Your task to perform on an android device: allow notifications from all sites in the chrome app Image 0: 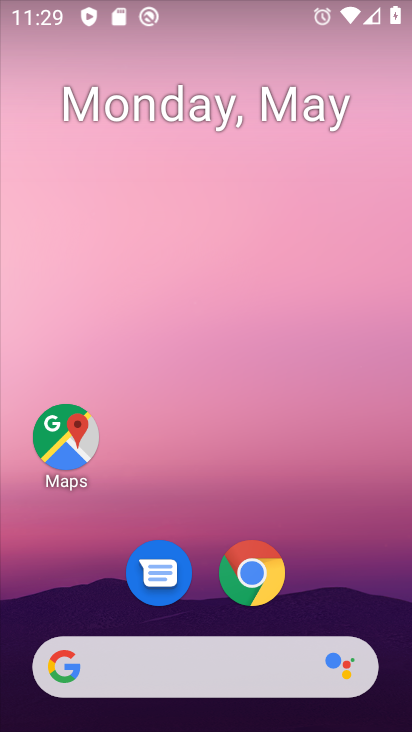
Step 0: drag from (114, 721) to (125, 221)
Your task to perform on an android device: allow notifications from all sites in the chrome app Image 1: 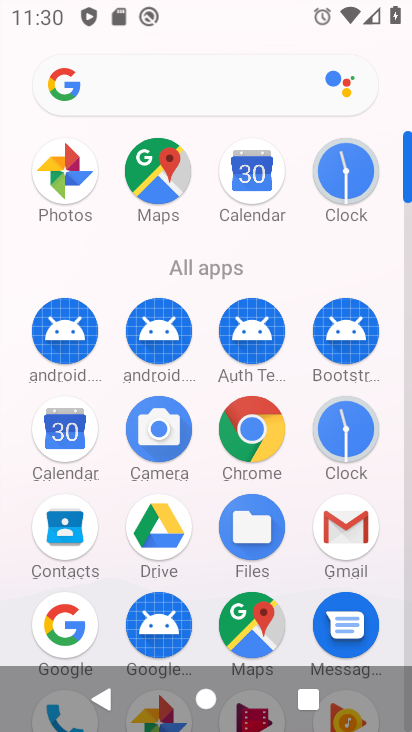
Step 1: click (239, 426)
Your task to perform on an android device: allow notifications from all sites in the chrome app Image 2: 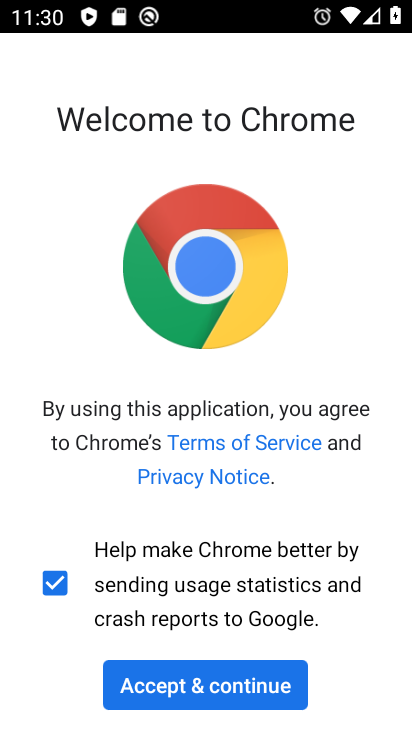
Step 2: click (142, 691)
Your task to perform on an android device: allow notifications from all sites in the chrome app Image 3: 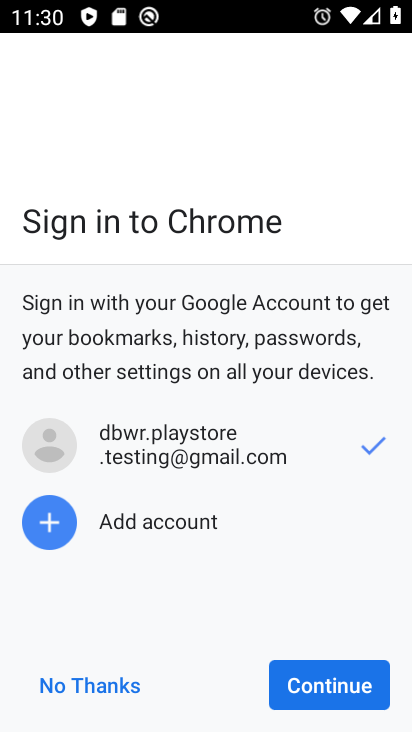
Step 3: click (321, 705)
Your task to perform on an android device: allow notifications from all sites in the chrome app Image 4: 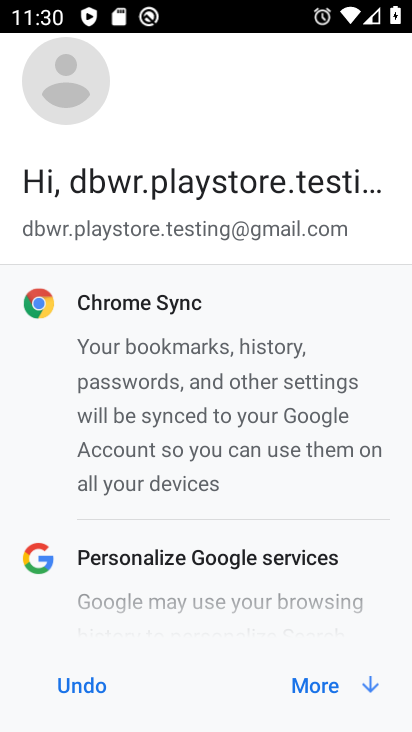
Step 4: click (313, 684)
Your task to perform on an android device: allow notifications from all sites in the chrome app Image 5: 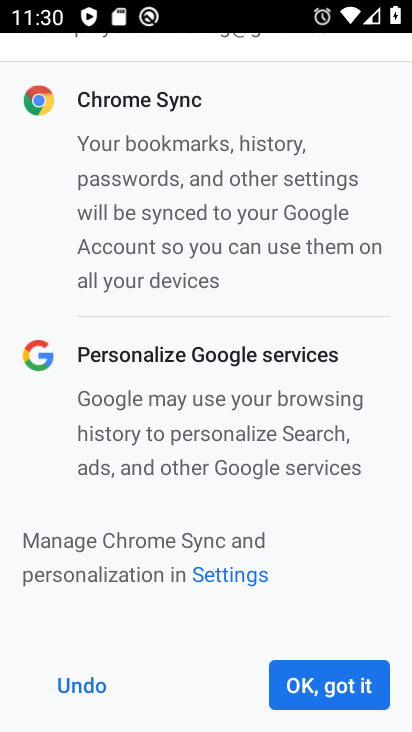
Step 5: click (310, 685)
Your task to perform on an android device: allow notifications from all sites in the chrome app Image 6: 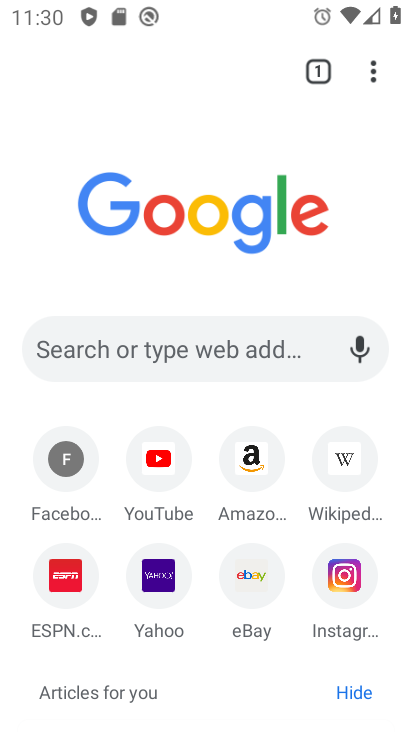
Step 6: click (371, 62)
Your task to perform on an android device: allow notifications from all sites in the chrome app Image 7: 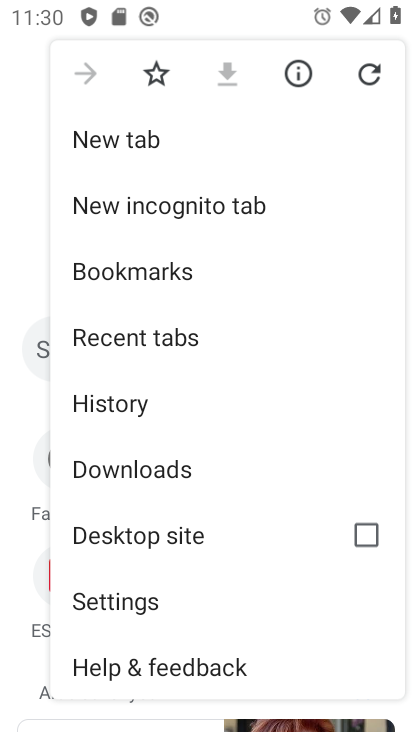
Step 7: click (143, 603)
Your task to perform on an android device: allow notifications from all sites in the chrome app Image 8: 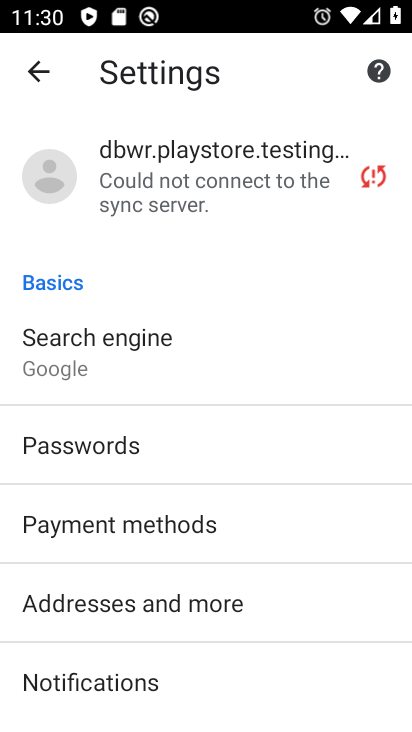
Step 8: click (138, 686)
Your task to perform on an android device: allow notifications from all sites in the chrome app Image 9: 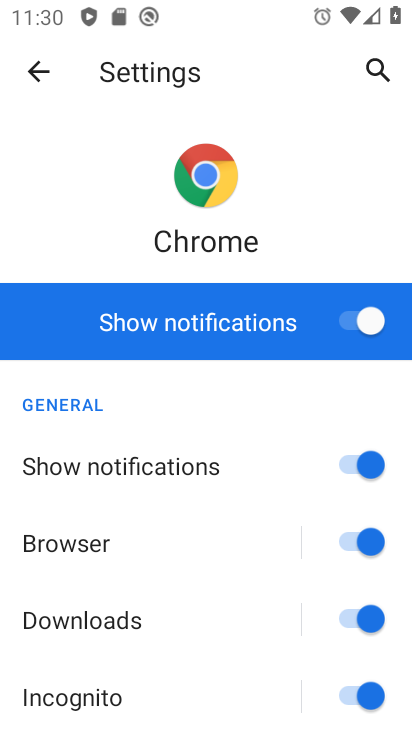
Step 9: drag from (167, 688) to (142, 273)
Your task to perform on an android device: allow notifications from all sites in the chrome app Image 10: 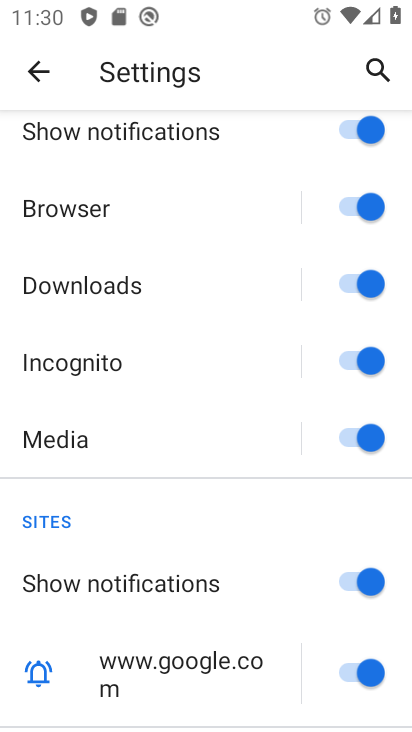
Step 10: drag from (174, 672) to (216, 269)
Your task to perform on an android device: allow notifications from all sites in the chrome app Image 11: 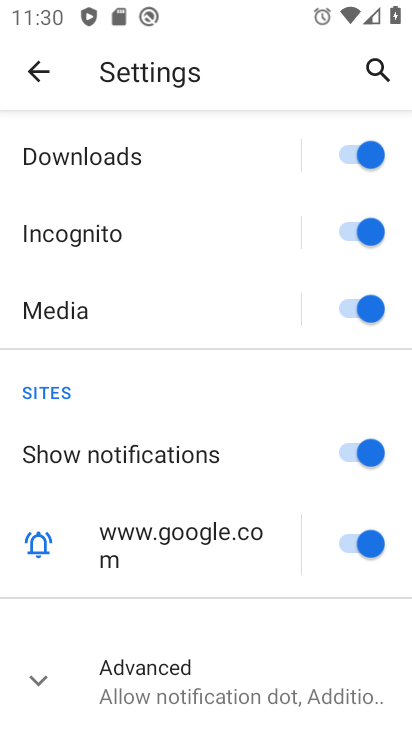
Step 11: click (153, 685)
Your task to perform on an android device: allow notifications from all sites in the chrome app Image 12: 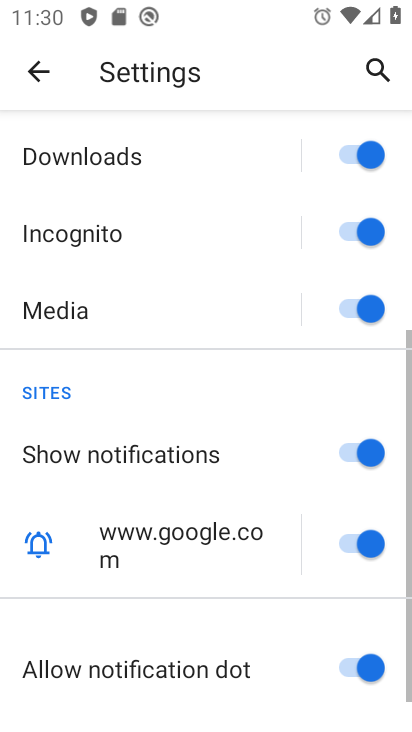
Step 12: drag from (205, 613) to (236, 239)
Your task to perform on an android device: allow notifications from all sites in the chrome app Image 13: 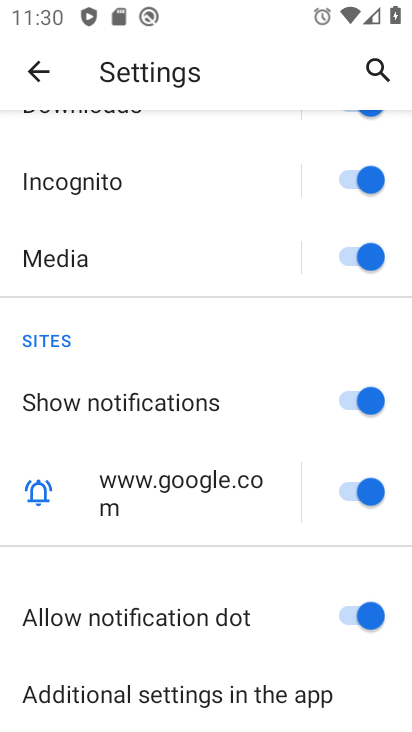
Step 13: click (226, 698)
Your task to perform on an android device: allow notifications from all sites in the chrome app Image 14: 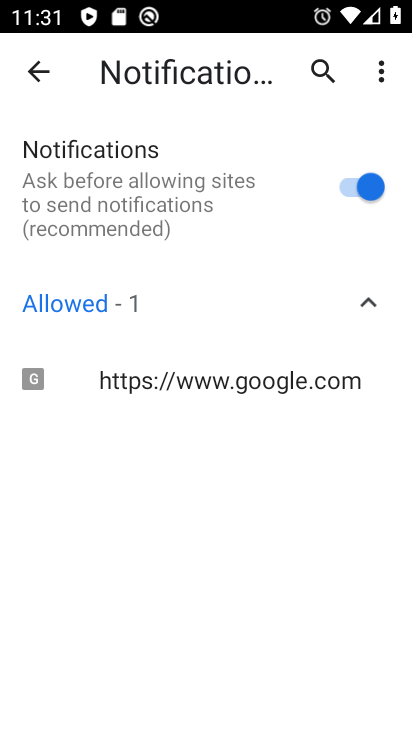
Step 14: task complete